Your task to perform on an android device: Check the news Image 0: 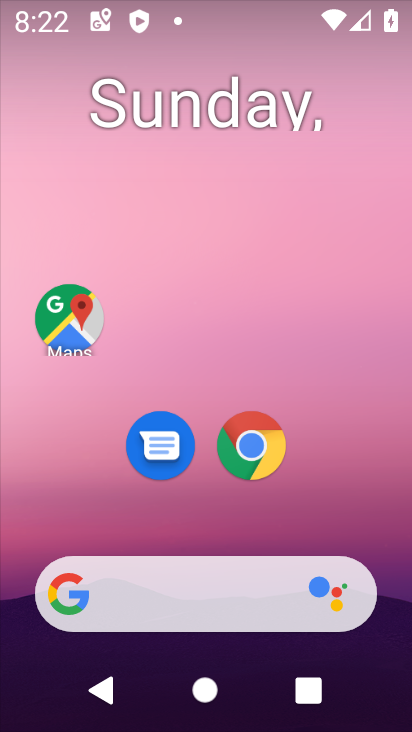
Step 0: click (165, 611)
Your task to perform on an android device: Check the news Image 1: 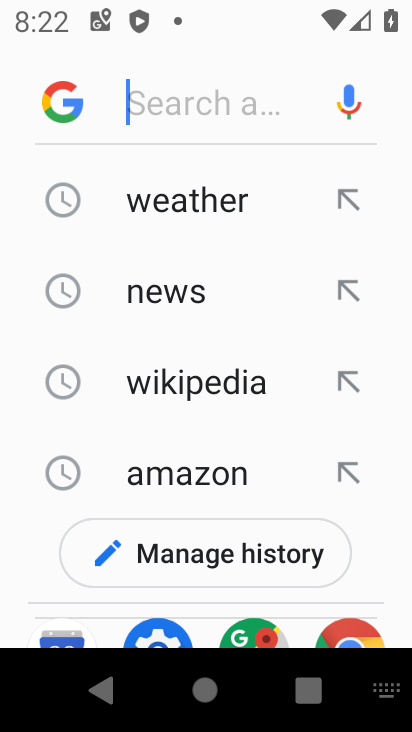
Step 1: click (153, 297)
Your task to perform on an android device: Check the news Image 2: 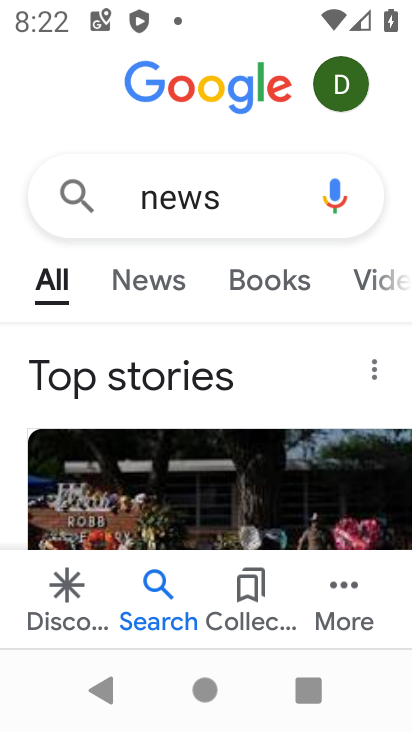
Step 2: task complete